Your task to perform on an android device: Search for the new Air Jordan 13 on Nike.com Image 0: 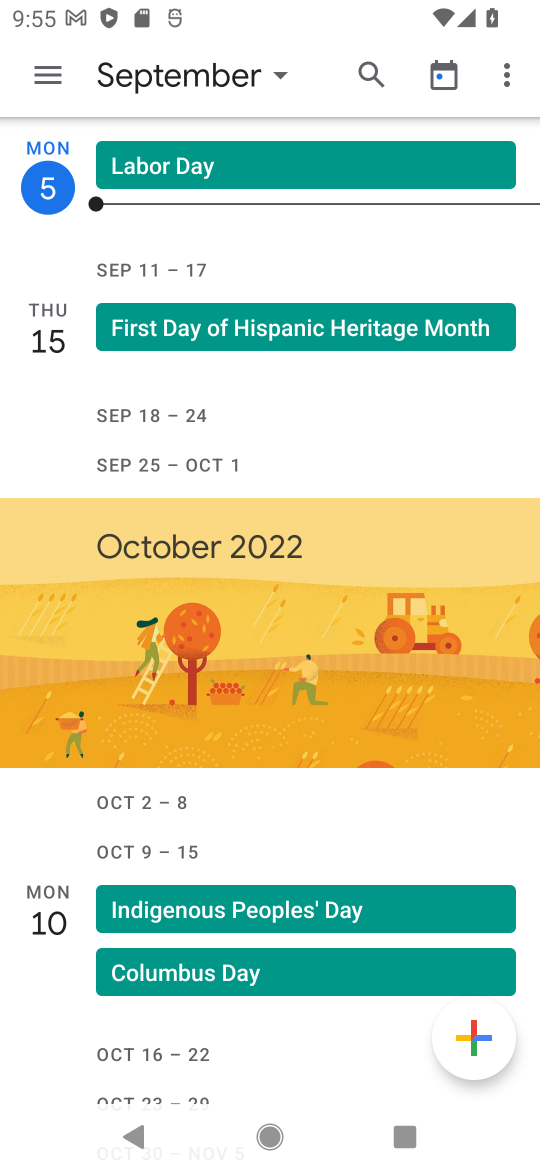
Step 0: press home button
Your task to perform on an android device: Search for the new Air Jordan 13 on Nike.com Image 1: 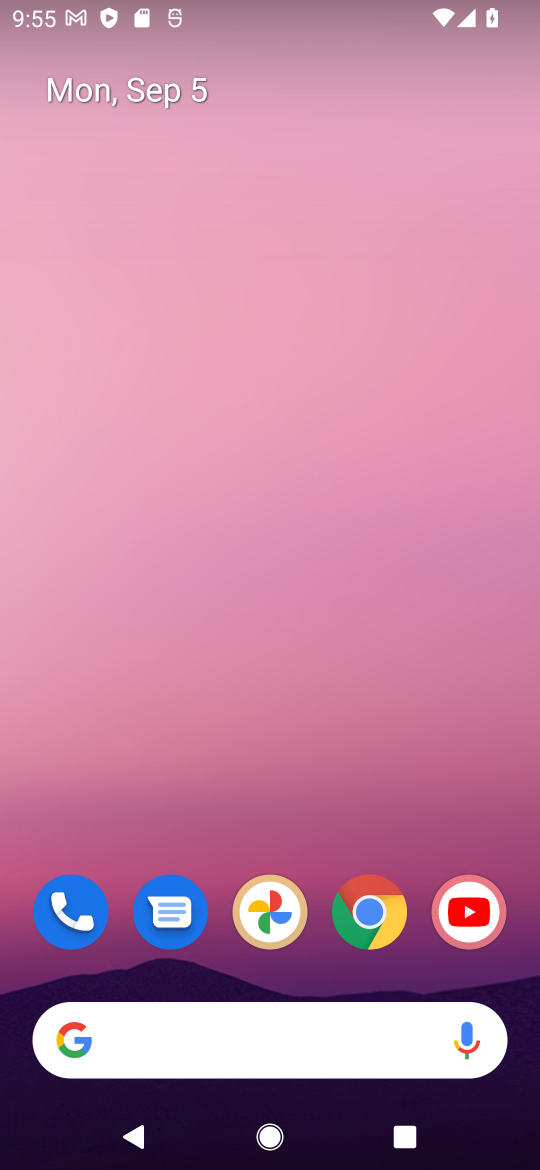
Step 1: click (365, 901)
Your task to perform on an android device: Search for the new Air Jordan 13 on Nike.com Image 2: 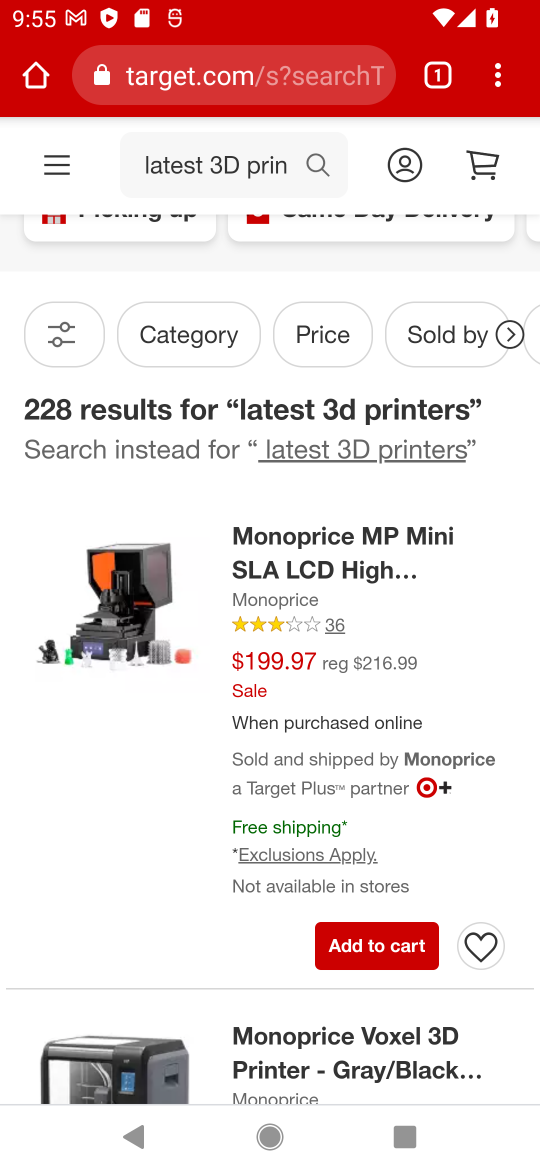
Step 2: click (232, 79)
Your task to perform on an android device: Search for the new Air Jordan 13 on Nike.com Image 3: 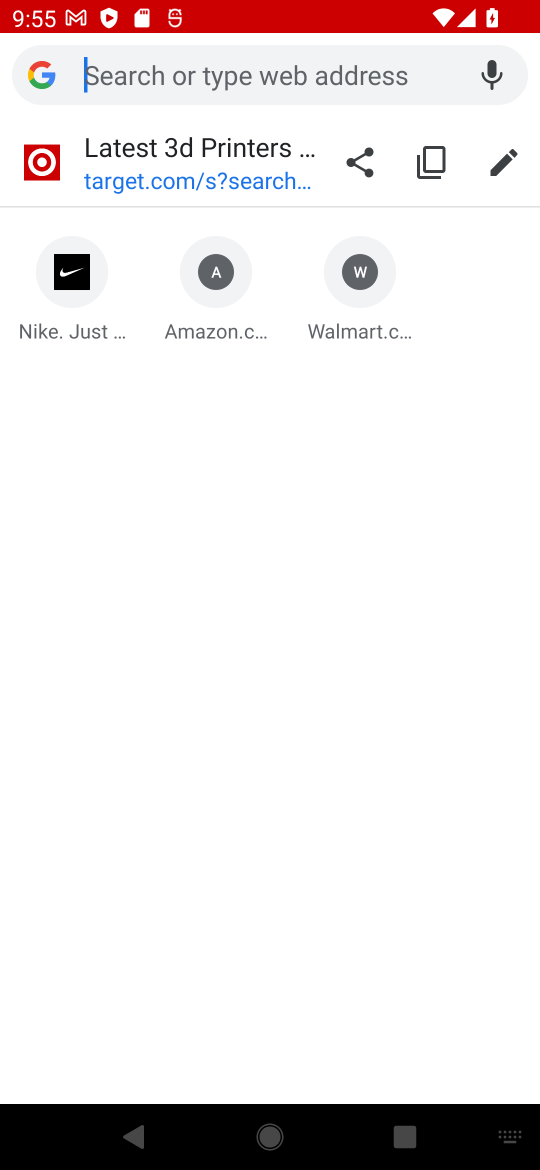
Step 3: type "Nike.com"
Your task to perform on an android device: Search for the new Air Jordan 13 on Nike.com Image 4: 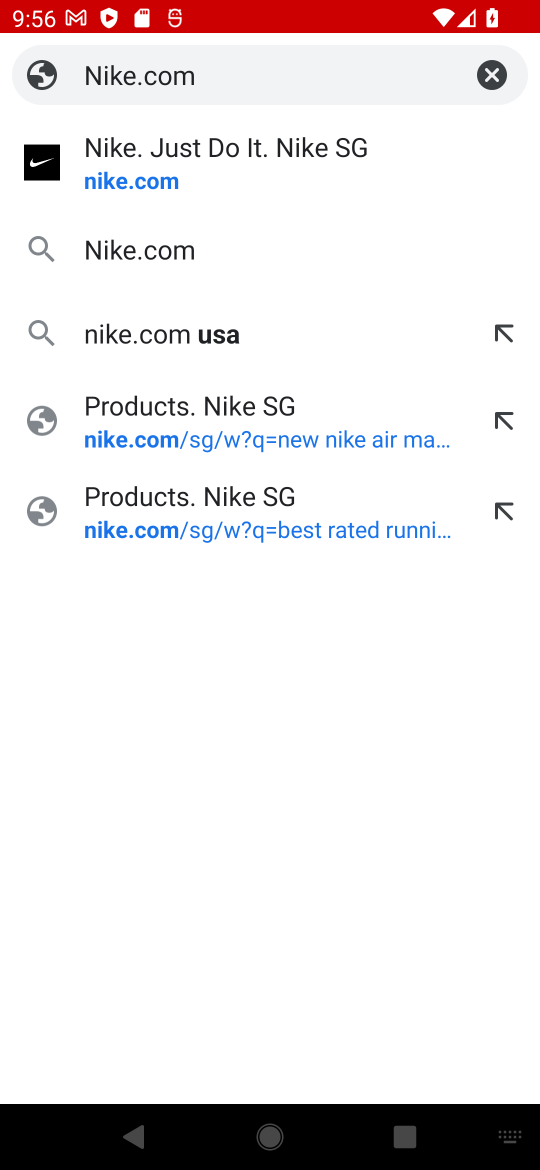
Step 4: click (126, 255)
Your task to perform on an android device: Search for the new Air Jordan 13 on Nike.com Image 5: 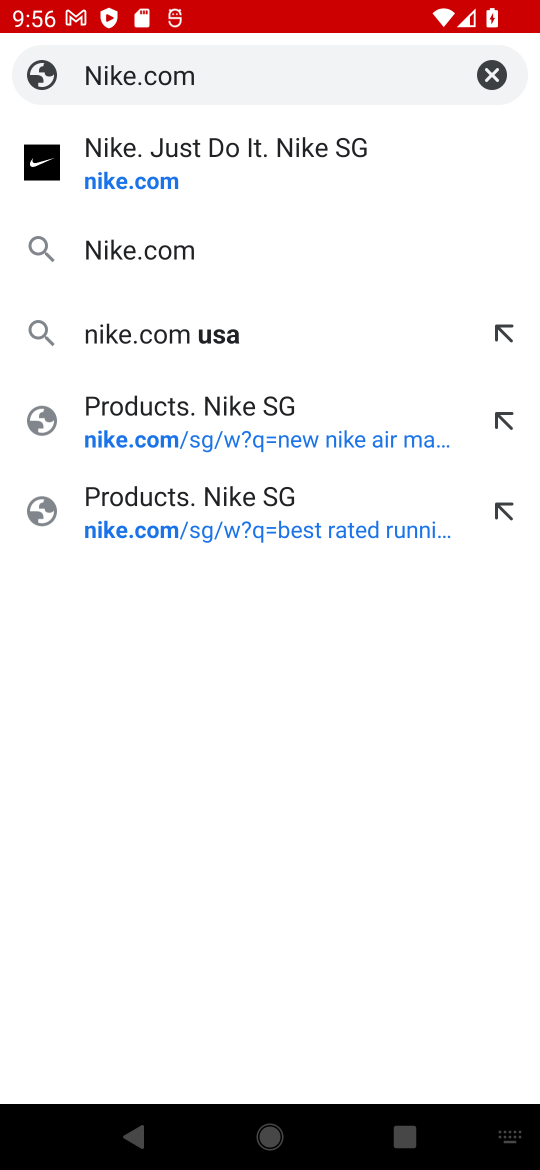
Step 5: click (124, 241)
Your task to perform on an android device: Search for the new Air Jordan 13 on Nike.com Image 6: 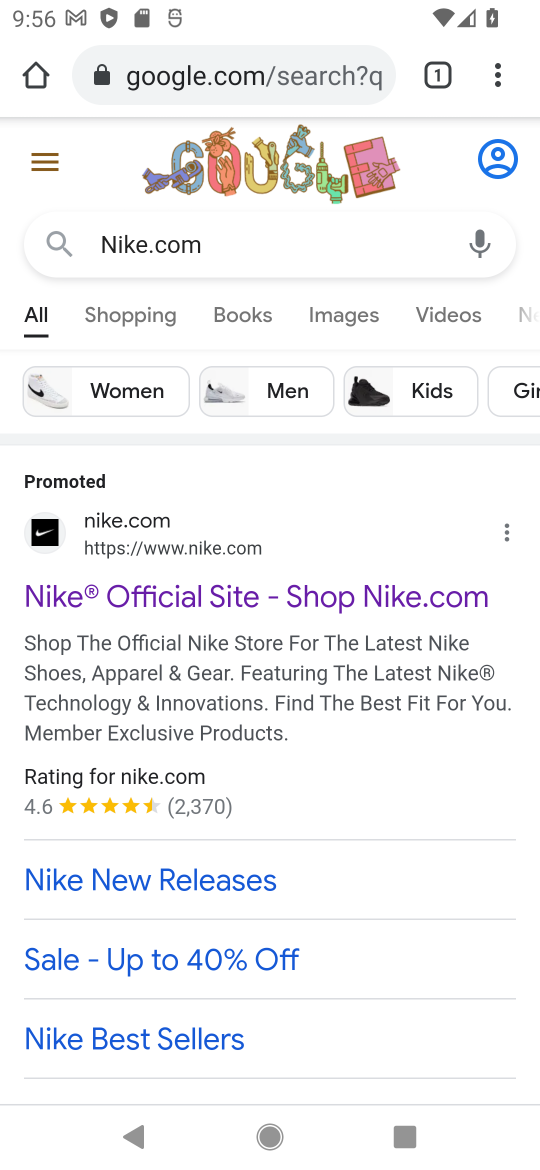
Step 6: click (94, 605)
Your task to perform on an android device: Search for the new Air Jordan 13 on Nike.com Image 7: 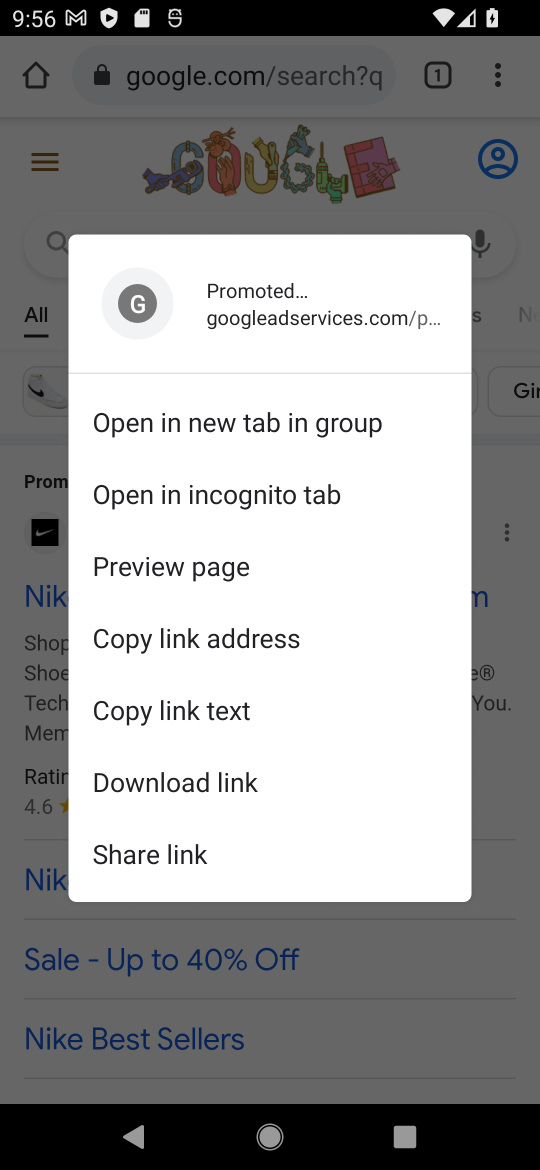
Step 7: click (38, 604)
Your task to perform on an android device: Search for the new Air Jordan 13 on Nike.com Image 8: 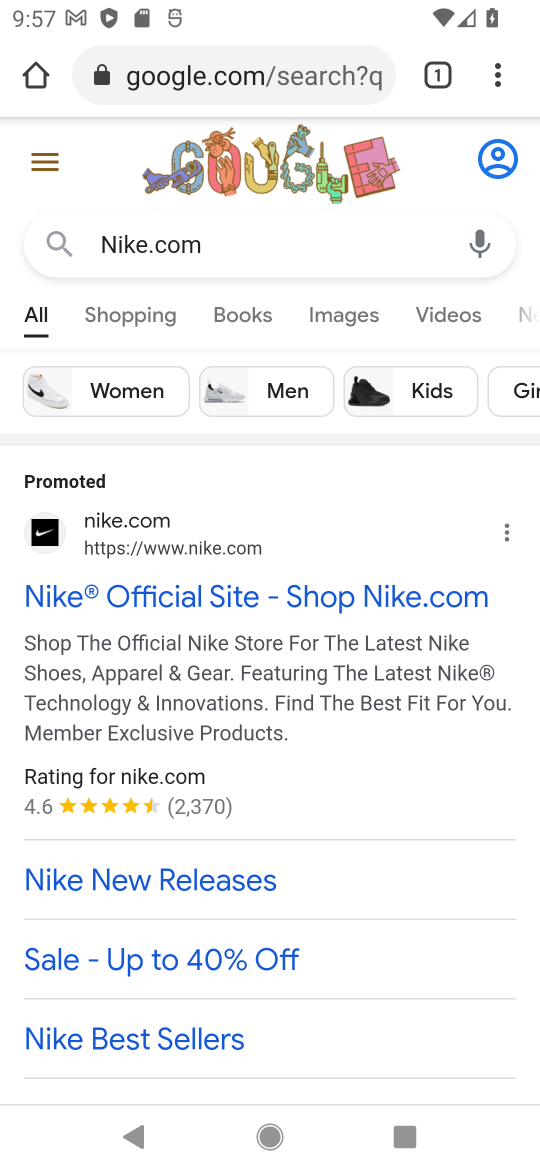
Step 8: click (126, 597)
Your task to perform on an android device: Search for the new Air Jordan 13 on Nike.com Image 9: 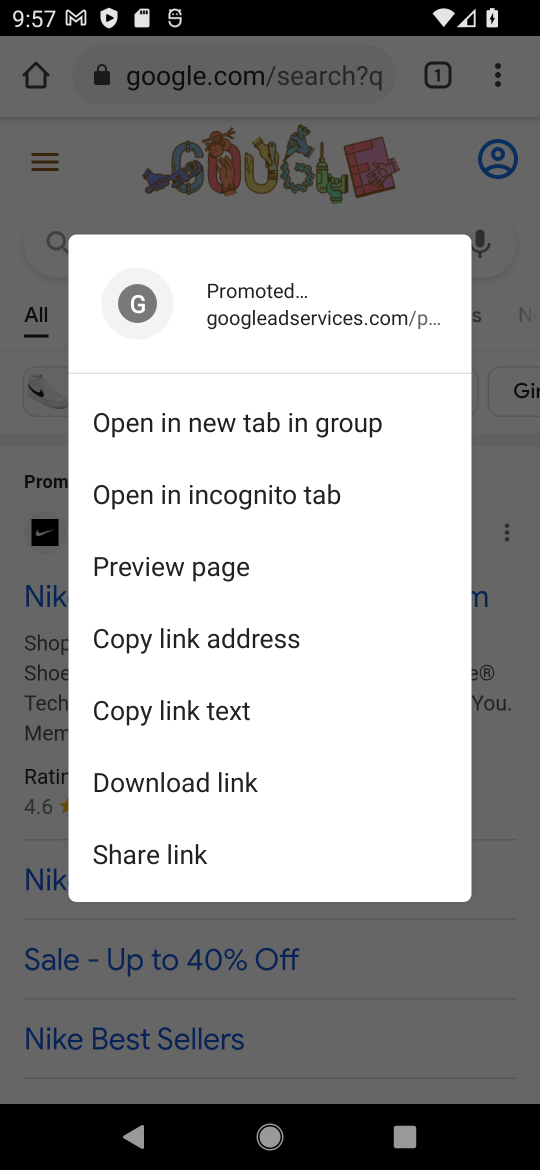
Step 9: click (42, 600)
Your task to perform on an android device: Search for the new Air Jordan 13 on Nike.com Image 10: 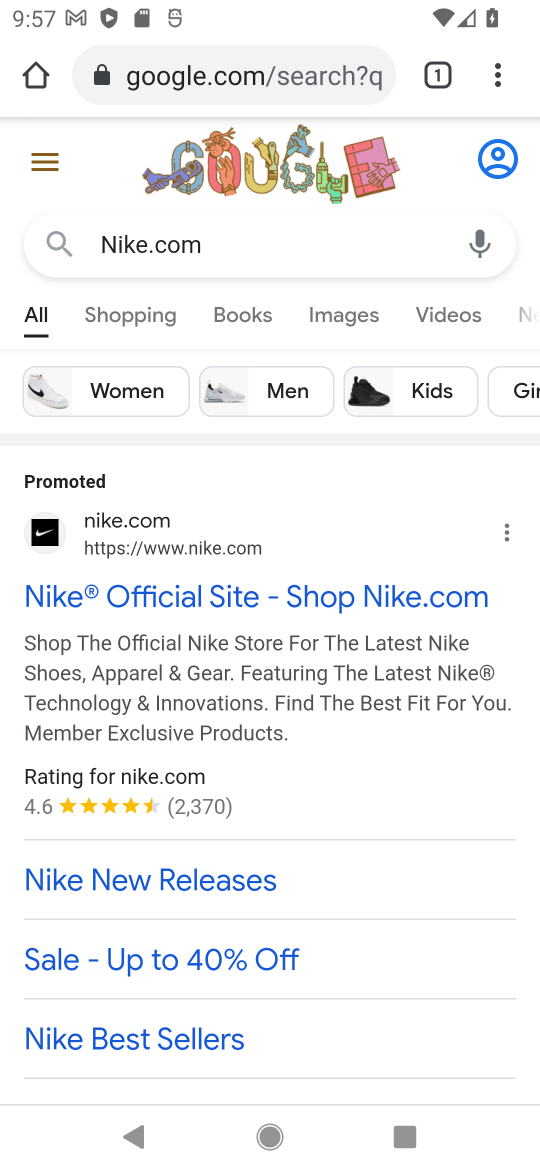
Step 10: click (207, 604)
Your task to perform on an android device: Search for the new Air Jordan 13 on Nike.com Image 11: 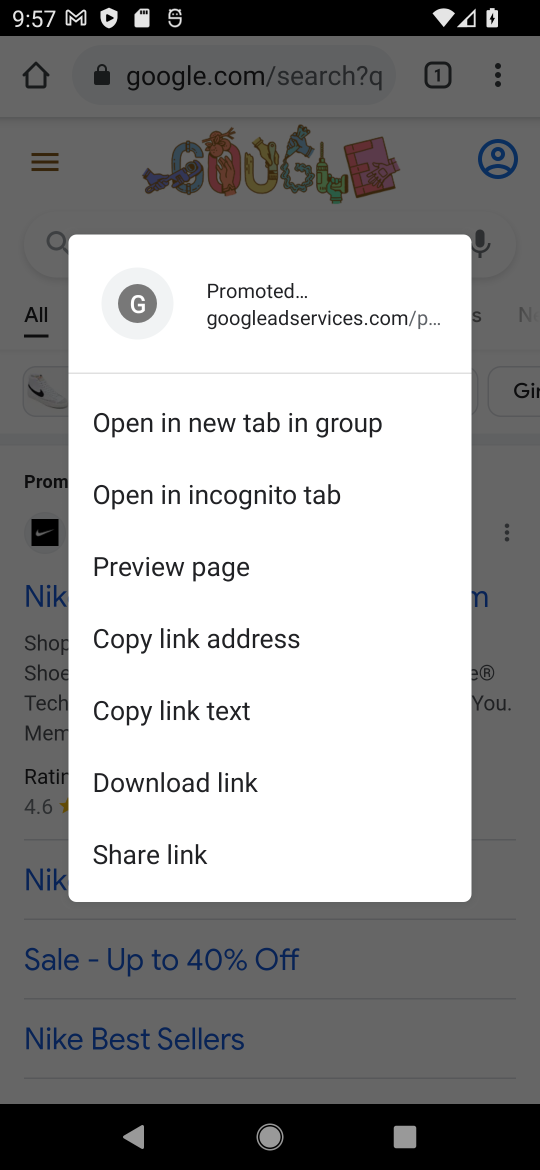
Step 11: click (46, 613)
Your task to perform on an android device: Search for the new Air Jordan 13 on Nike.com Image 12: 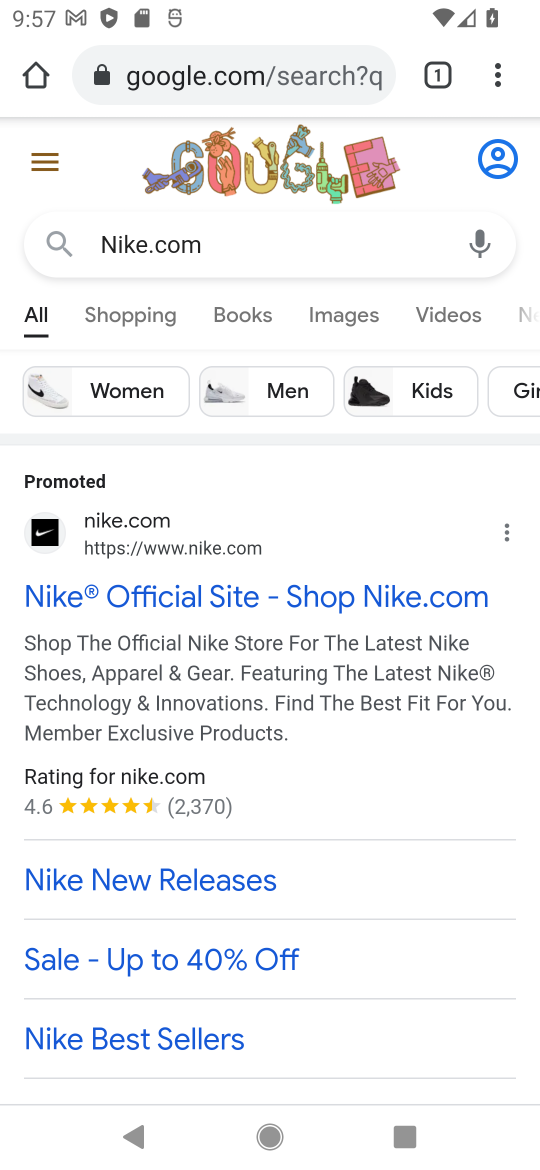
Step 12: click (188, 606)
Your task to perform on an android device: Search for the new Air Jordan 13 on Nike.com Image 13: 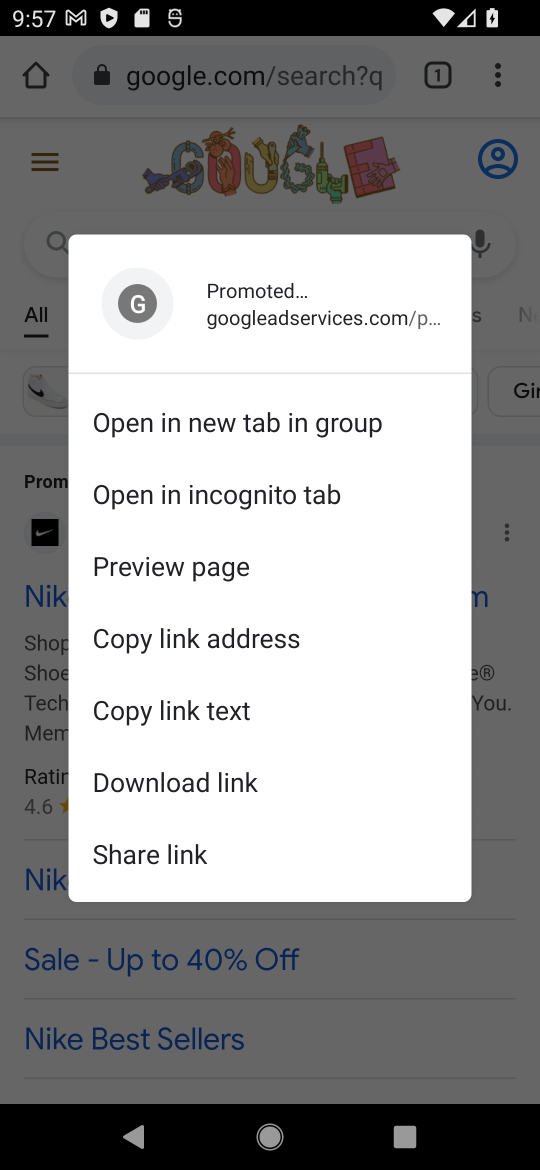
Step 13: click (493, 604)
Your task to perform on an android device: Search for the new Air Jordan 13 on Nike.com Image 14: 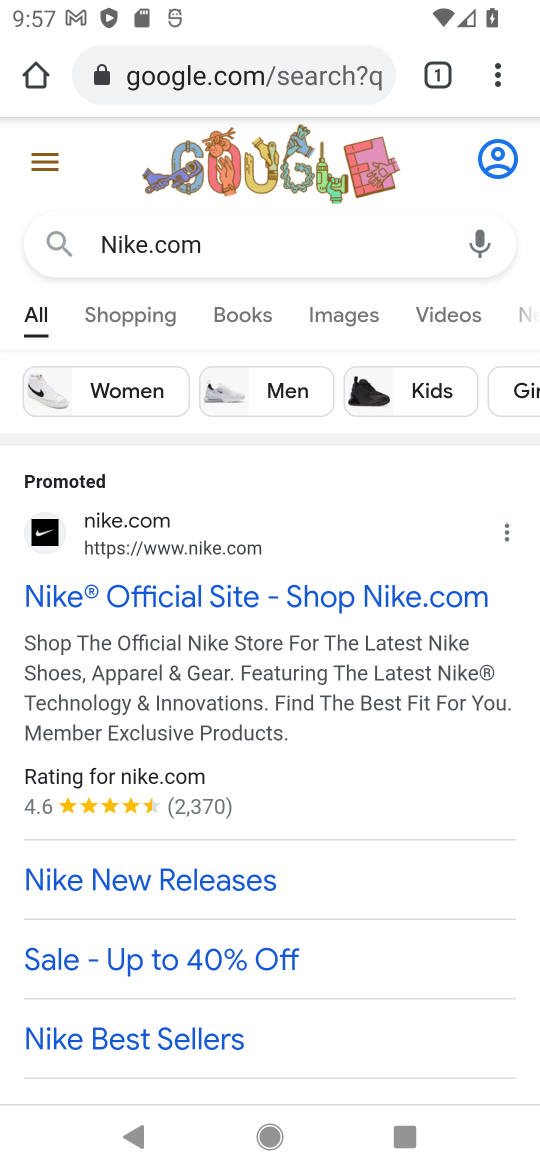
Step 14: click (151, 597)
Your task to perform on an android device: Search for the new Air Jordan 13 on Nike.com Image 15: 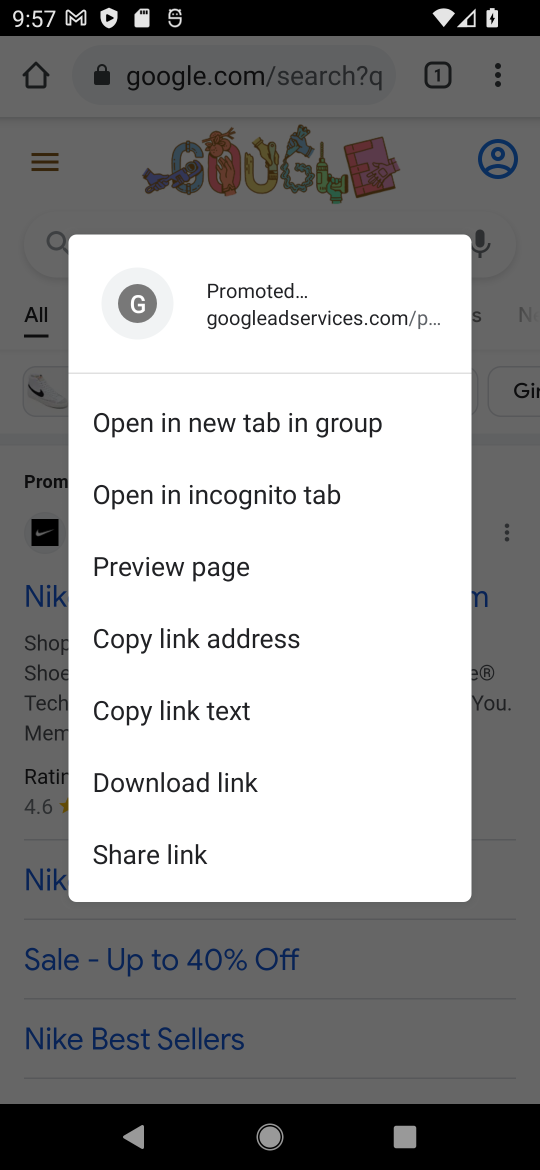
Step 15: click (50, 602)
Your task to perform on an android device: Search for the new Air Jordan 13 on Nike.com Image 16: 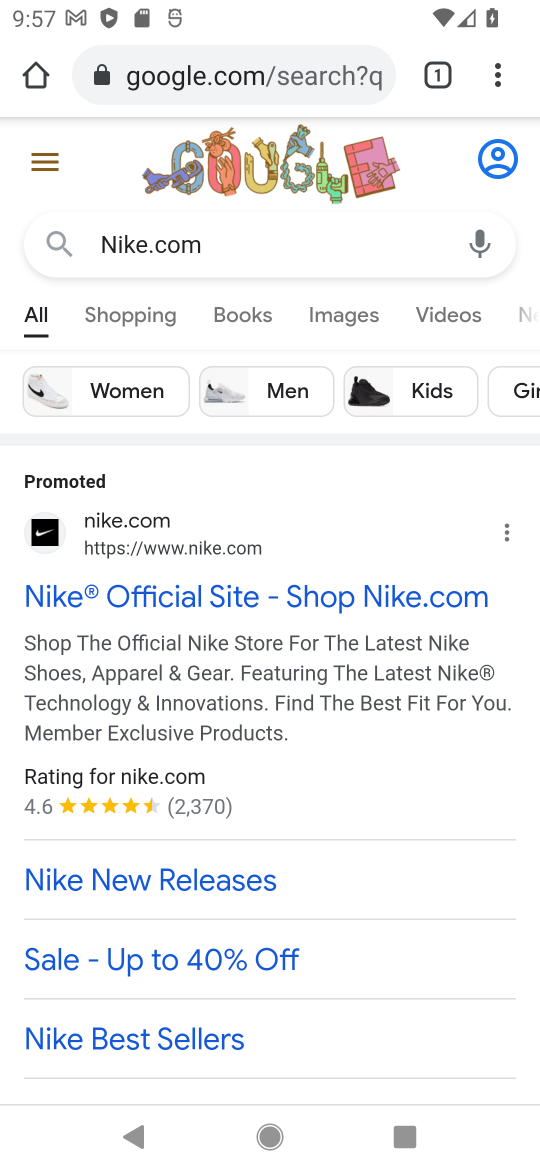
Step 16: click (50, 602)
Your task to perform on an android device: Search for the new Air Jordan 13 on Nike.com Image 17: 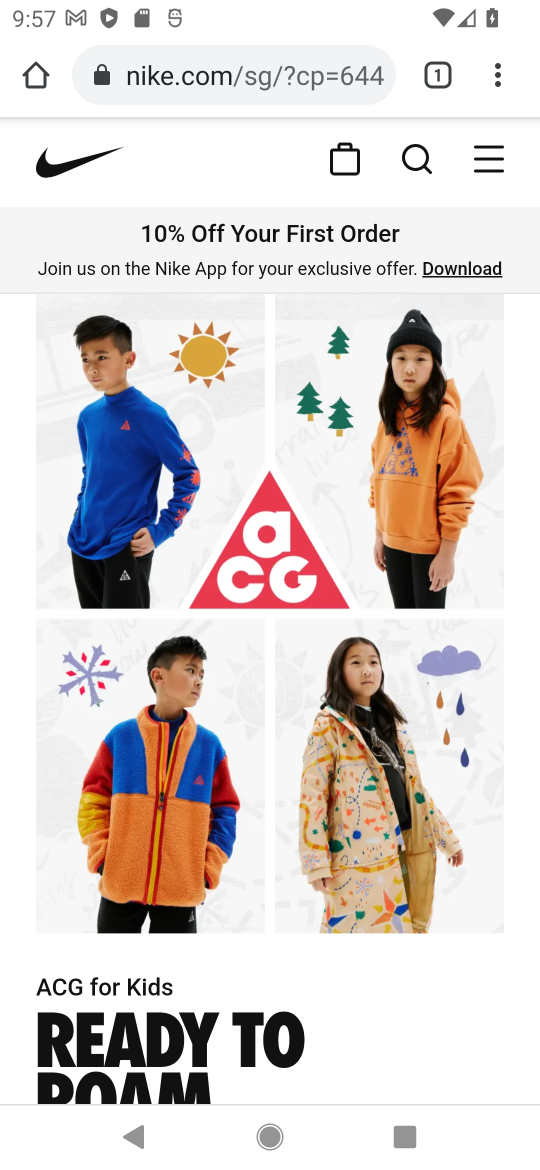
Step 17: click (416, 149)
Your task to perform on an android device: Search for the new Air Jordan 13 on Nike.com Image 18: 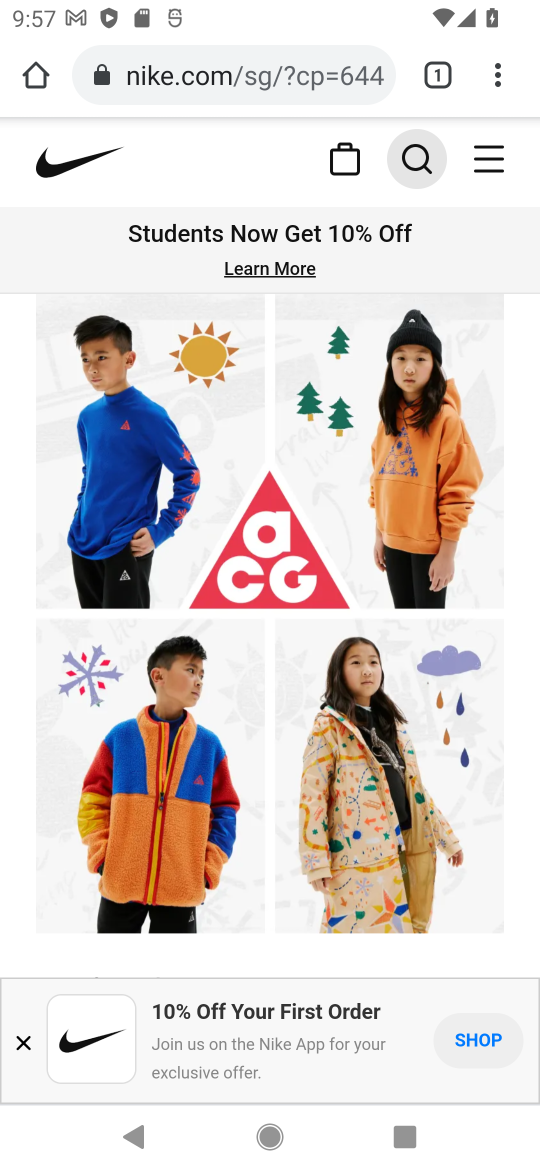
Step 18: click (387, 168)
Your task to perform on an android device: Search for the new Air Jordan 13 on Nike.com Image 19: 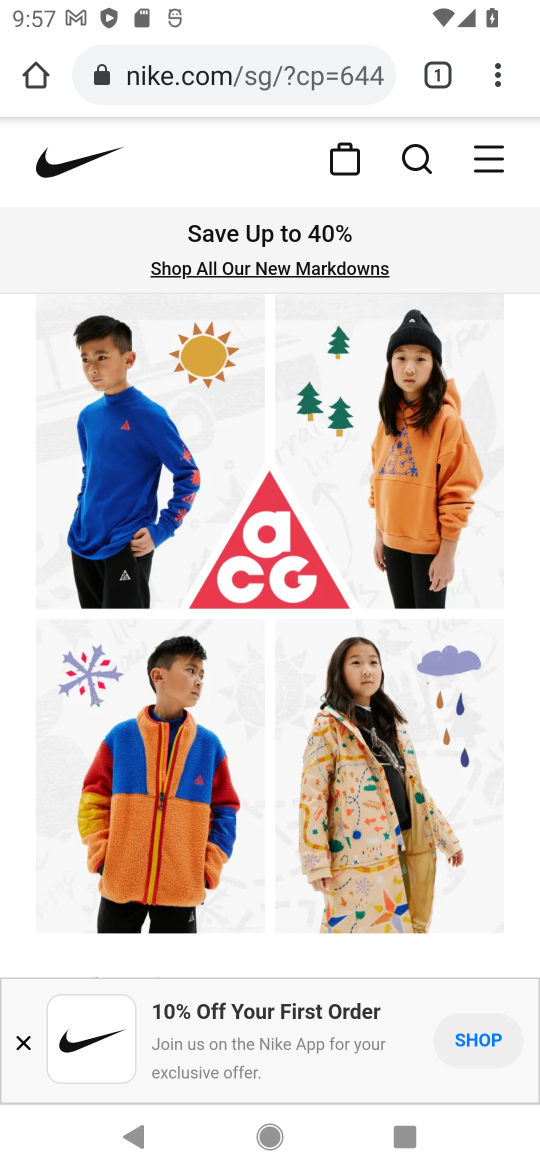
Step 19: click (401, 167)
Your task to perform on an android device: Search for the new Air Jordan 13 on Nike.com Image 20: 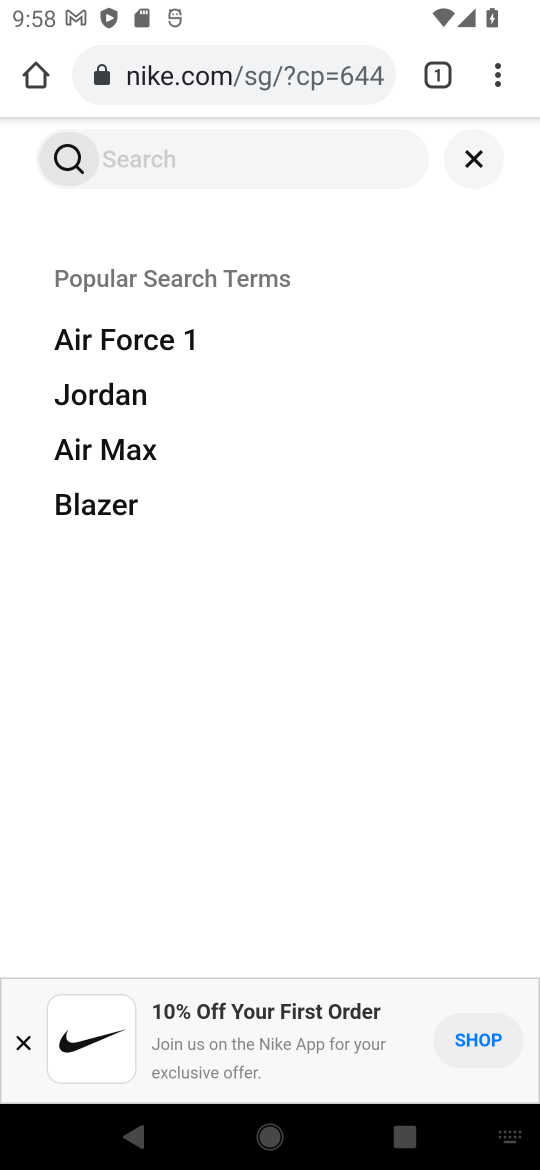
Step 20: type "new Air Jordan 13"
Your task to perform on an android device: Search for the new Air Jordan 13 on Nike.com Image 21: 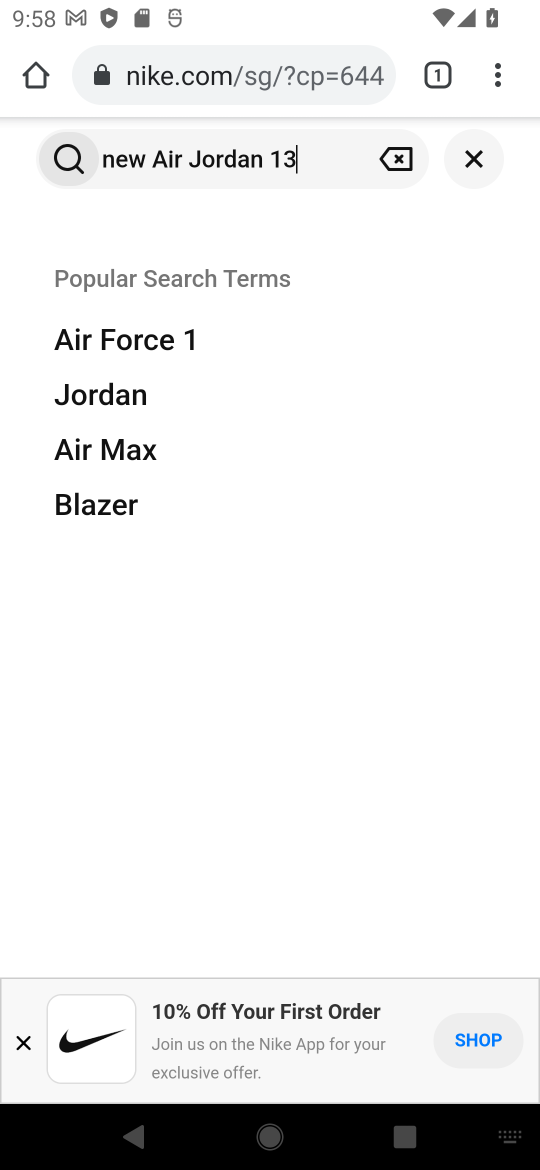
Step 21: click (73, 163)
Your task to perform on an android device: Search for the new Air Jordan 13 on Nike.com Image 22: 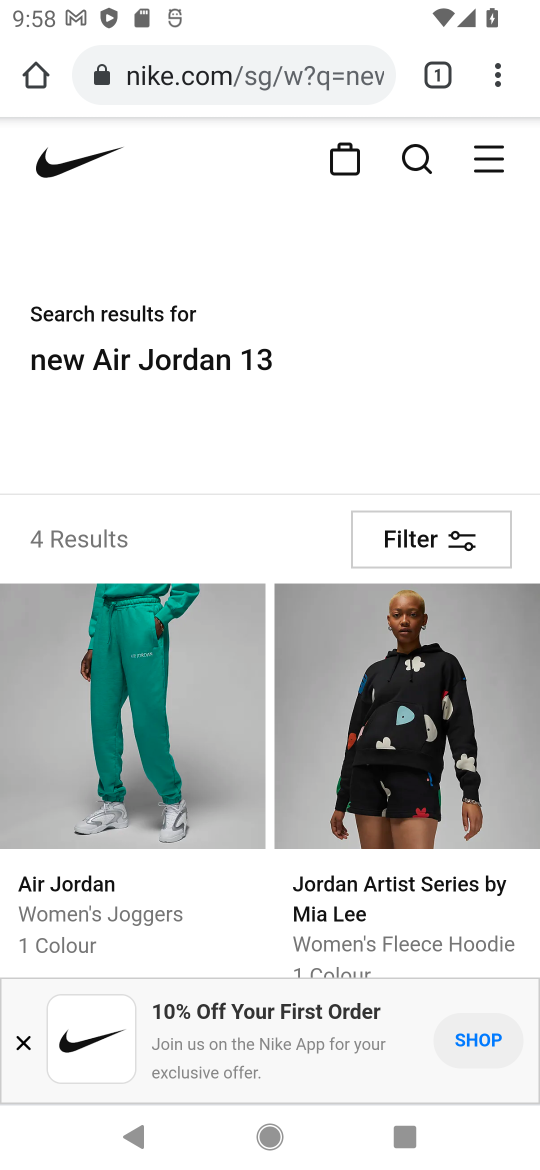
Step 22: task complete